Your task to perform on an android device: Search for vegetarian restaurants on Maps Image 0: 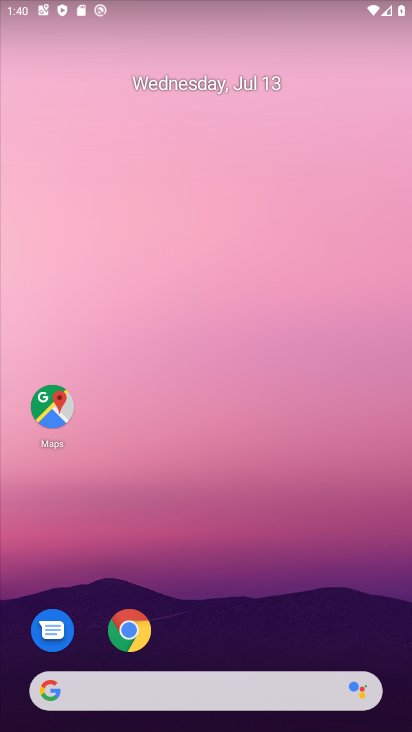
Step 0: drag from (331, 615) to (377, 129)
Your task to perform on an android device: Search for vegetarian restaurants on Maps Image 1: 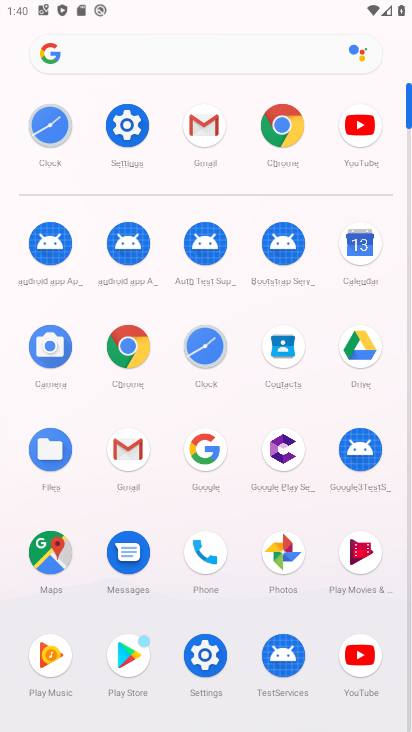
Step 1: click (43, 556)
Your task to perform on an android device: Search for vegetarian restaurants on Maps Image 2: 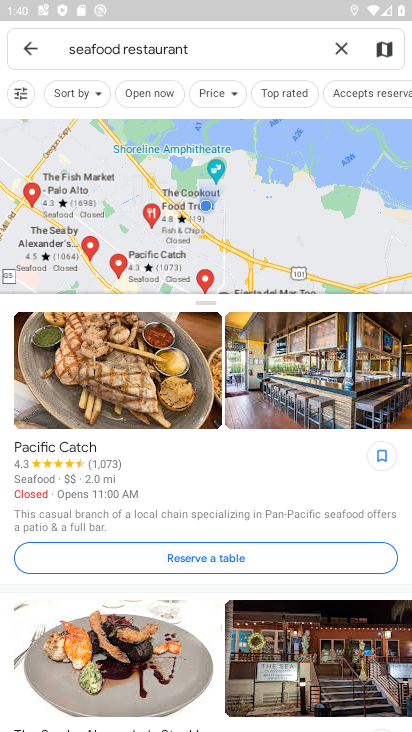
Step 2: press back button
Your task to perform on an android device: Search for vegetarian restaurants on Maps Image 3: 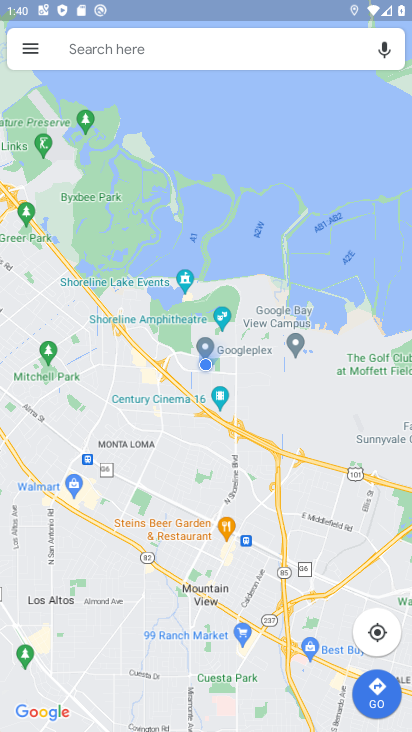
Step 3: click (268, 49)
Your task to perform on an android device: Search for vegetarian restaurants on Maps Image 4: 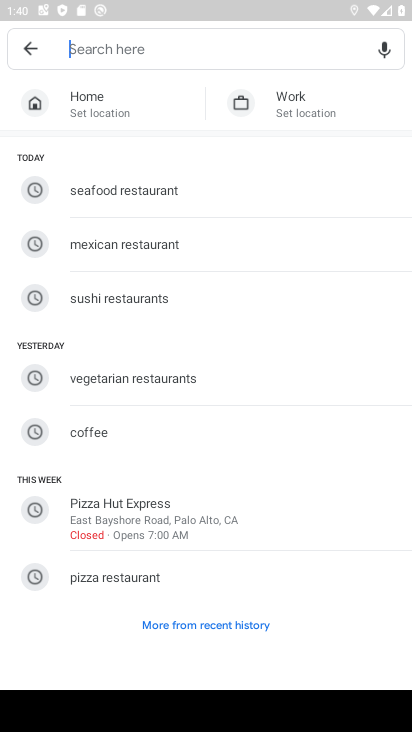
Step 4: type "vegetrain restaujrants"
Your task to perform on an android device: Search for vegetarian restaurants on Maps Image 5: 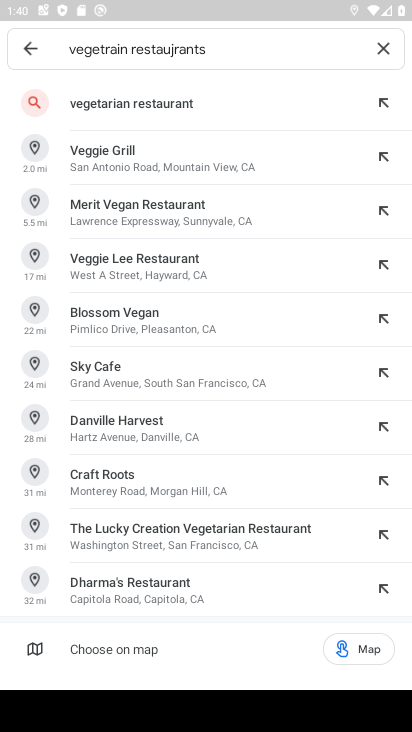
Step 5: click (168, 110)
Your task to perform on an android device: Search for vegetarian restaurants on Maps Image 6: 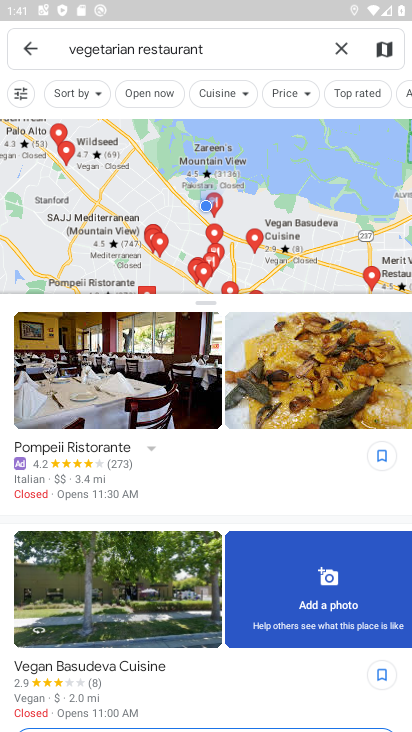
Step 6: task complete